Your task to perform on an android device: turn pop-ups off in chrome Image 0: 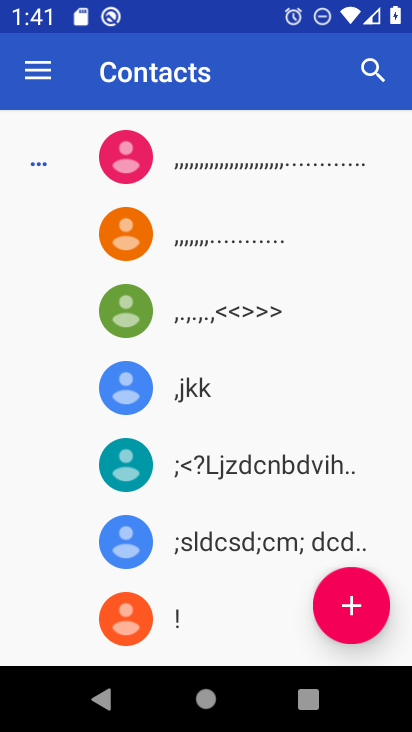
Step 0: press home button
Your task to perform on an android device: turn pop-ups off in chrome Image 1: 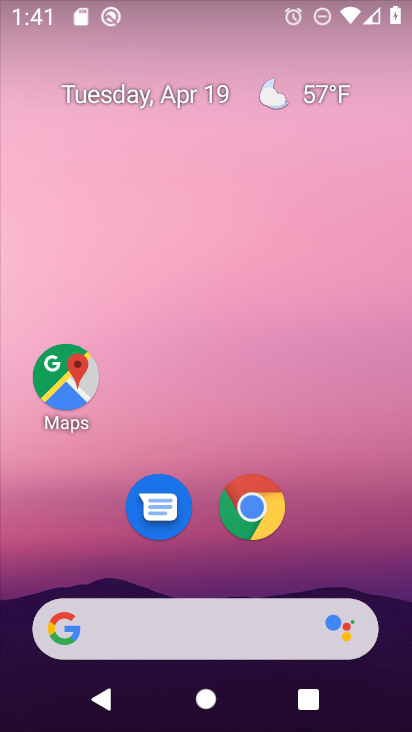
Step 1: click (229, 522)
Your task to perform on an android device: turn pop-ups off in chrome Image 2: 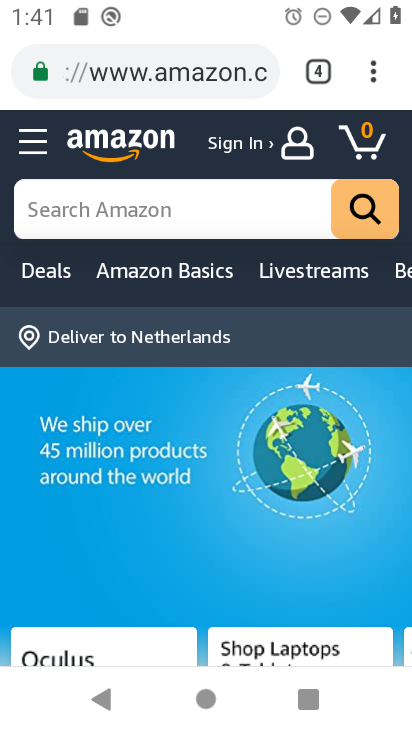
Step 2: click (361, 88)
Your task to perform on an android device: turn pop-ups off in chrome Image 3: 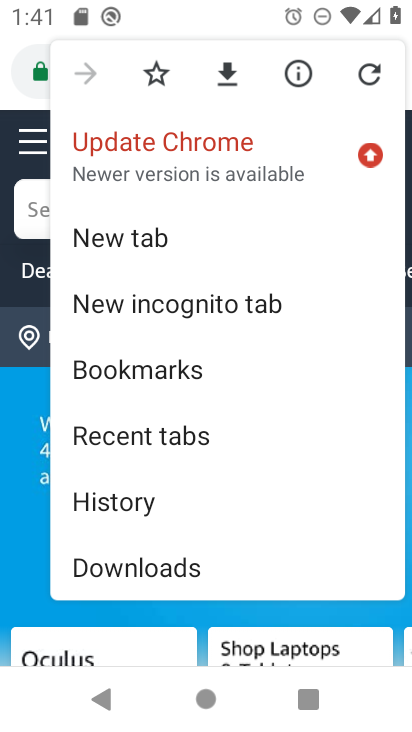
Step 3: drag from (183, 488) to (261, 117)
Your task to perform on an android device: turn pop-ups off in chrome Image 4: 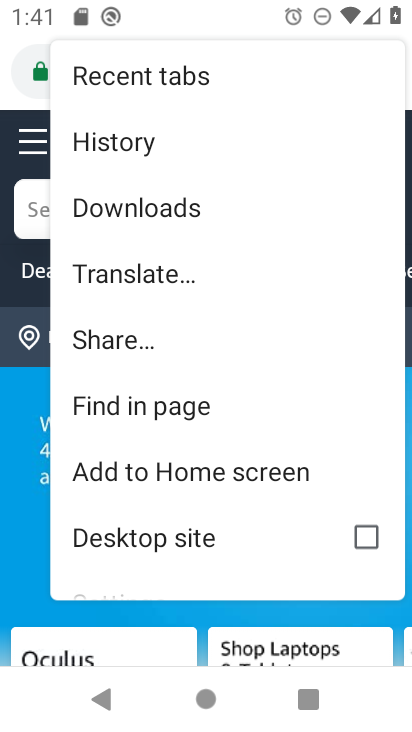
Step 4: drag from (203, 457) to (243, 171)
Your task to perform on an android device: turn pop-ups off in chrome Image 5: 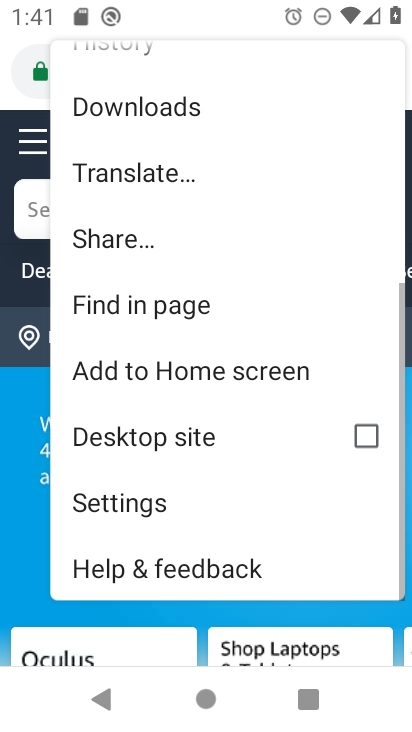
Step 5: click (228, 489)
Your task to perform on an android device: turn pop-ups off in chrome Image 6: 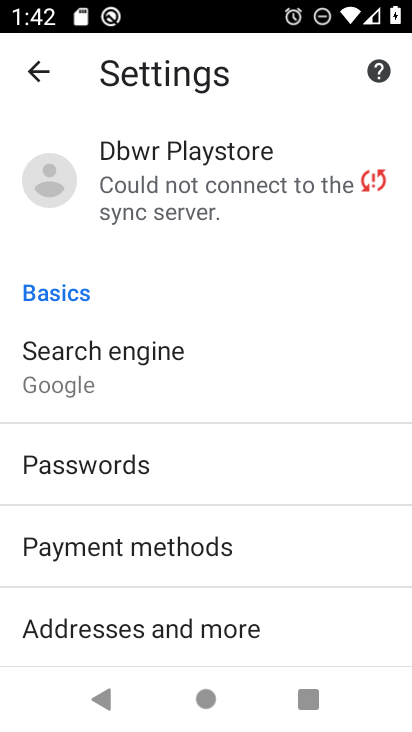
Step 6: drag from (193, 574) to (227, 146)
Your task to perform on an android device: turn pop-ups off in chrome Image 7: 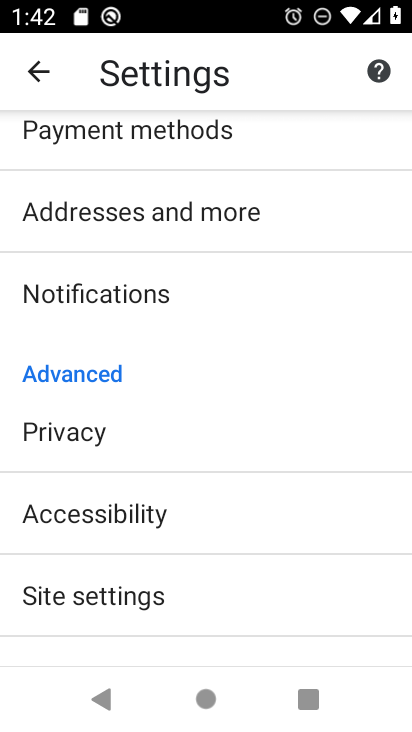
Step 7: click (146, 573)
Your task to perform on an android device: turn pop-ups off in chrome Image 8: 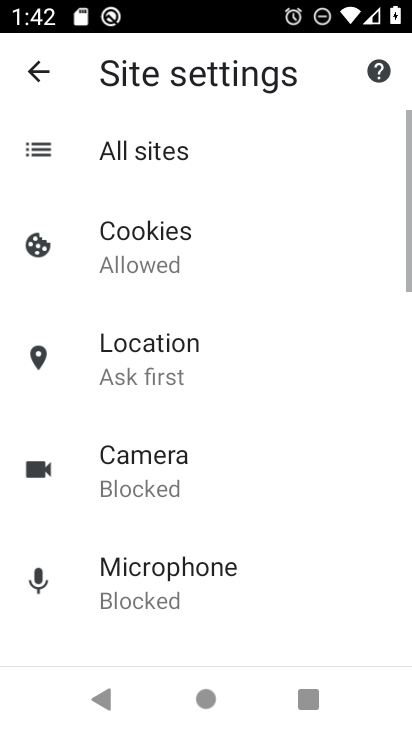
Step 8: drag from (198, 526) to (249, 149)
Your task to perform on an android device: turn pop-ups off in chrome Image 9: 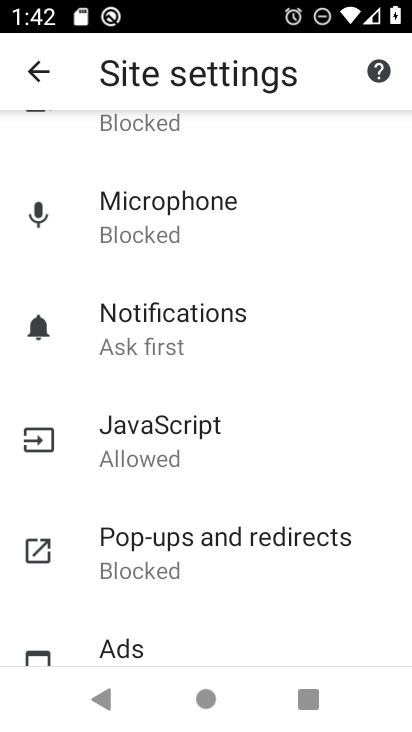
Step 9: click (200, 544)
Your task to perform on an android device: turn pop-ups off in chrome Image 10: 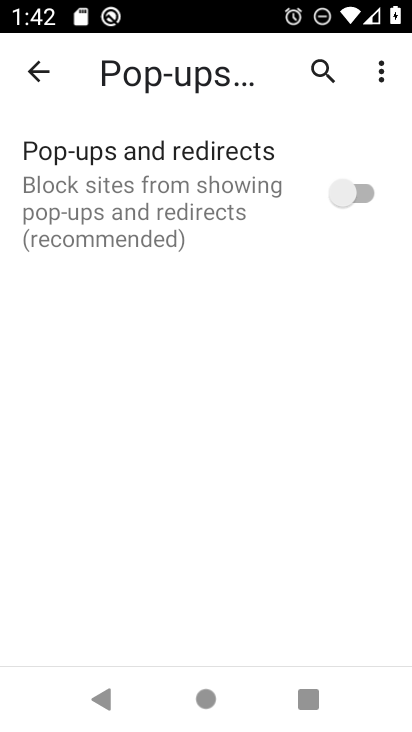
Step 10: click (323, 218)
Your task to perform on an android device: turn pop-ups off in chrome Image 11: 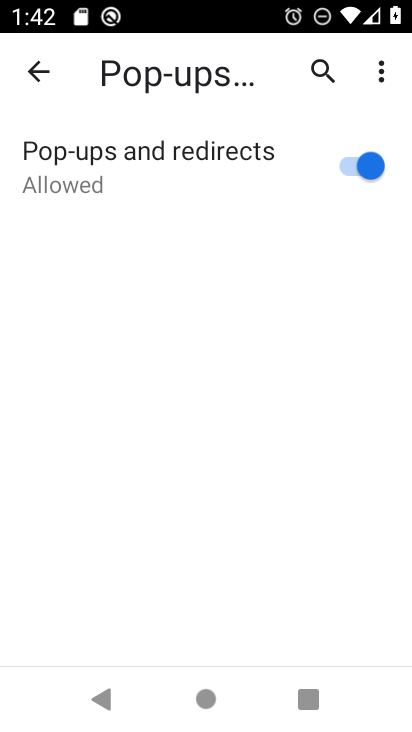
Step 11: task complete